Your task to perform on an android device: Empty the shopping cart on target. Image 0: 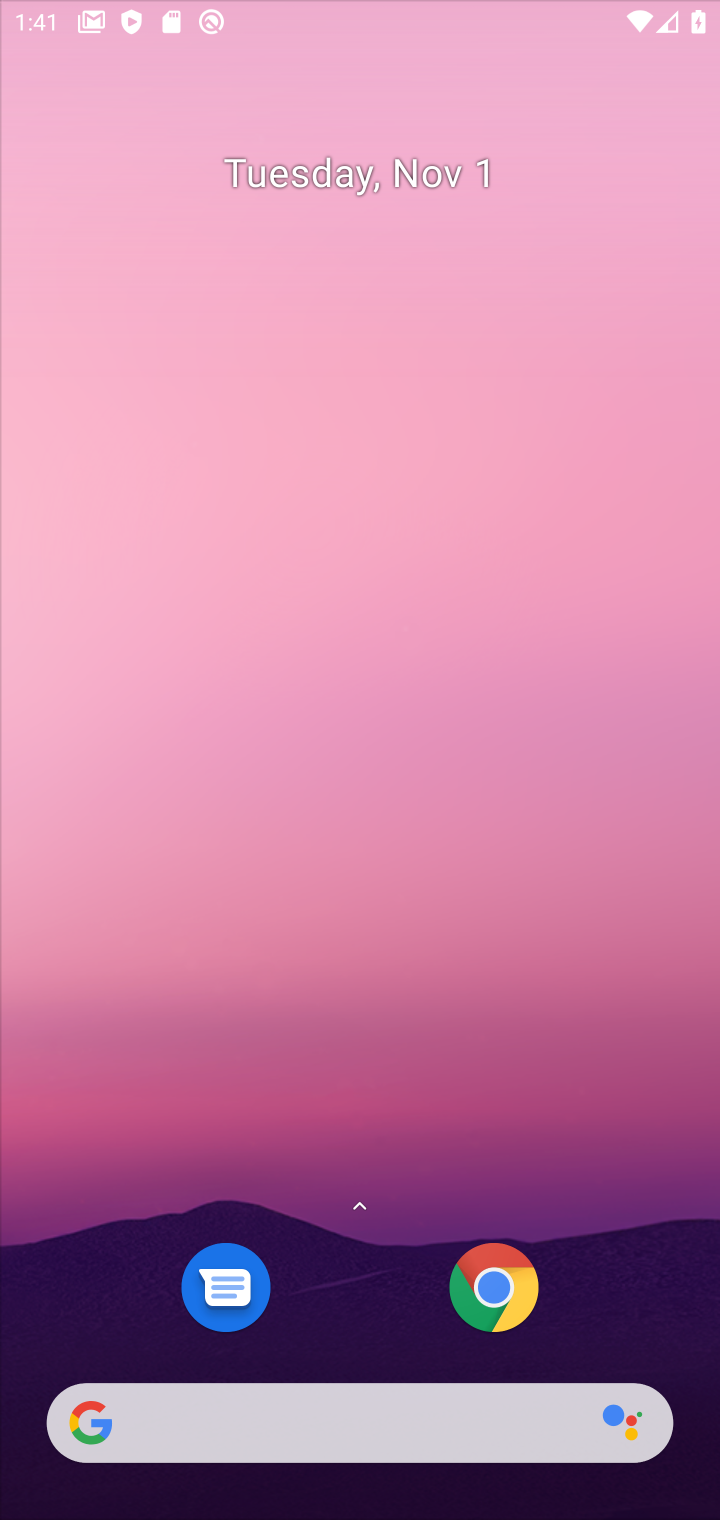
Step 0: press home button
Your task to perform on an android device: Empty the shopping cart on target. Image 1: 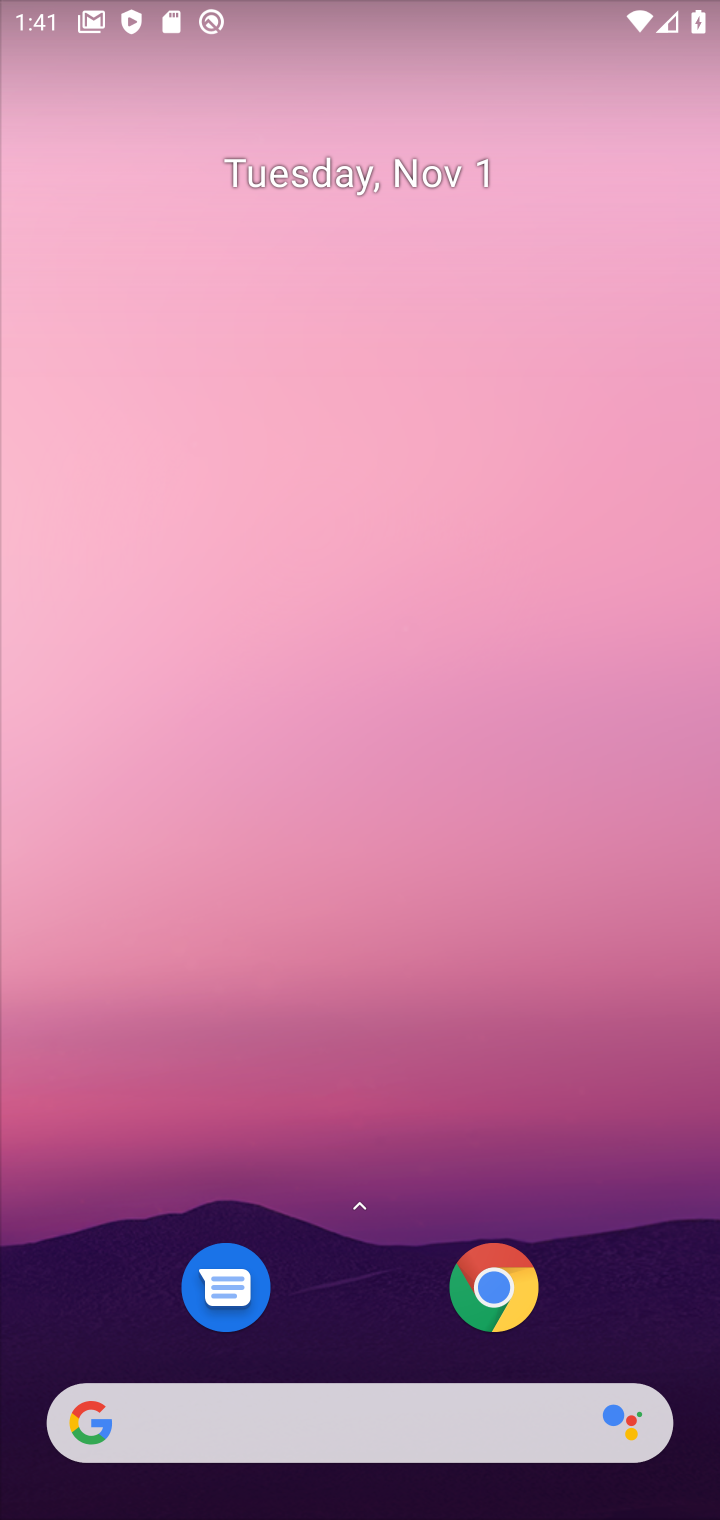
Step 1: drag from (414, 1098) to (528, 129)
Your task to perform on an android device: Empty the shopping cart on target. Image 2: 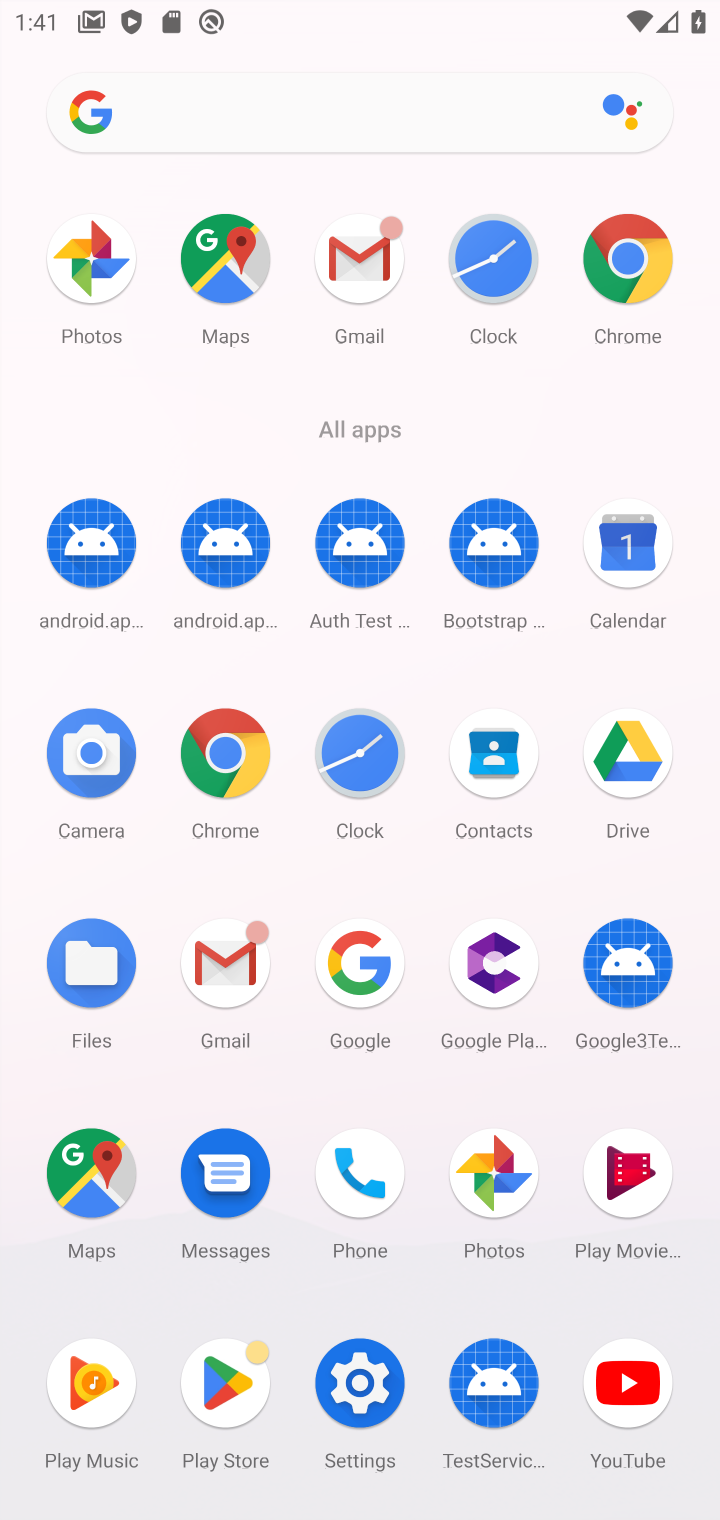
Step 2: click (231, 756)
Your task to perform on an android device: Empty the shopping cart on target. Image 3: 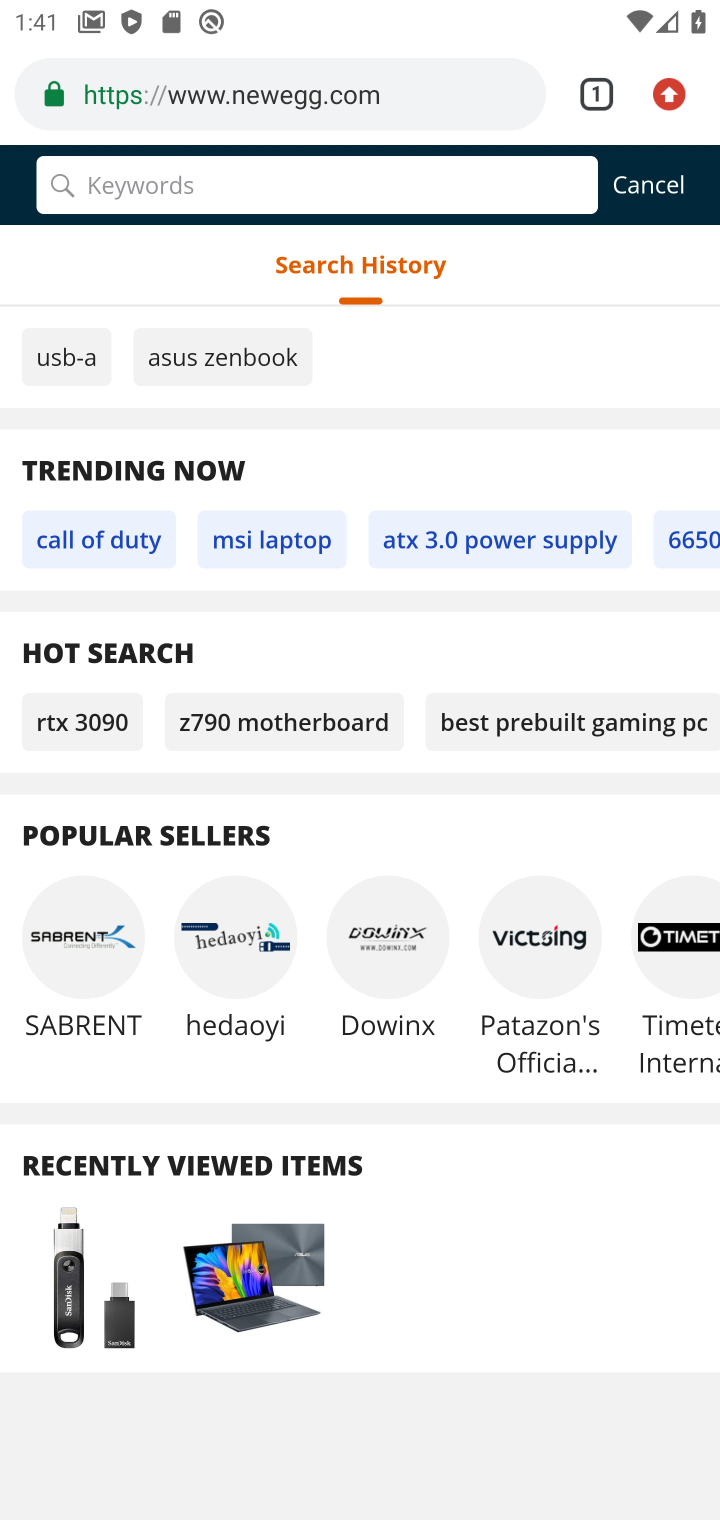
Step 3: click (396, 111)
Your task to perform on an android device: Empty the shopping cart on target. Image 4: 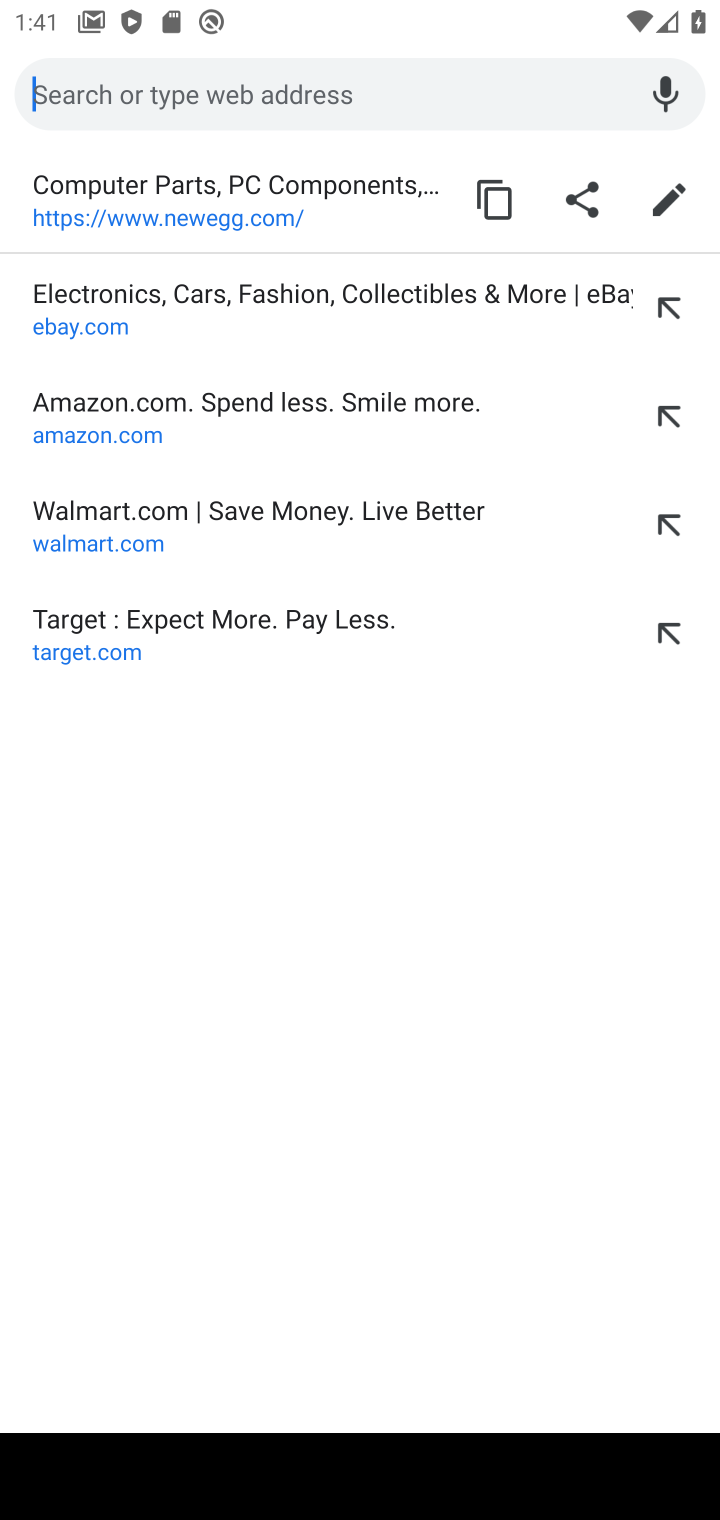
Step 4: type "target.com"
Your task to perform on an android device: Empty the shopping cart on target. Image 5: 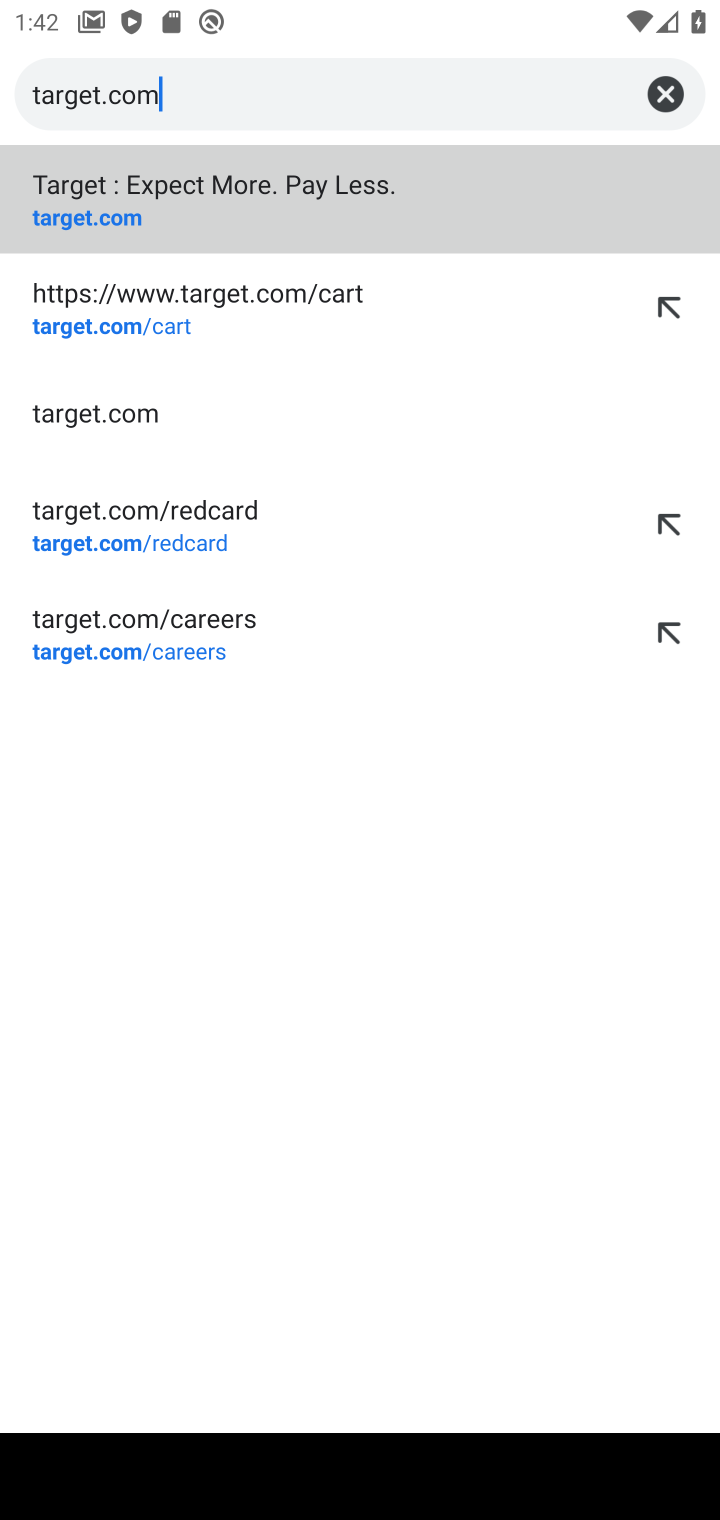
Step 5: press enter
Your task to perform on an android device: Empty the shopping cart on target. Image 6: 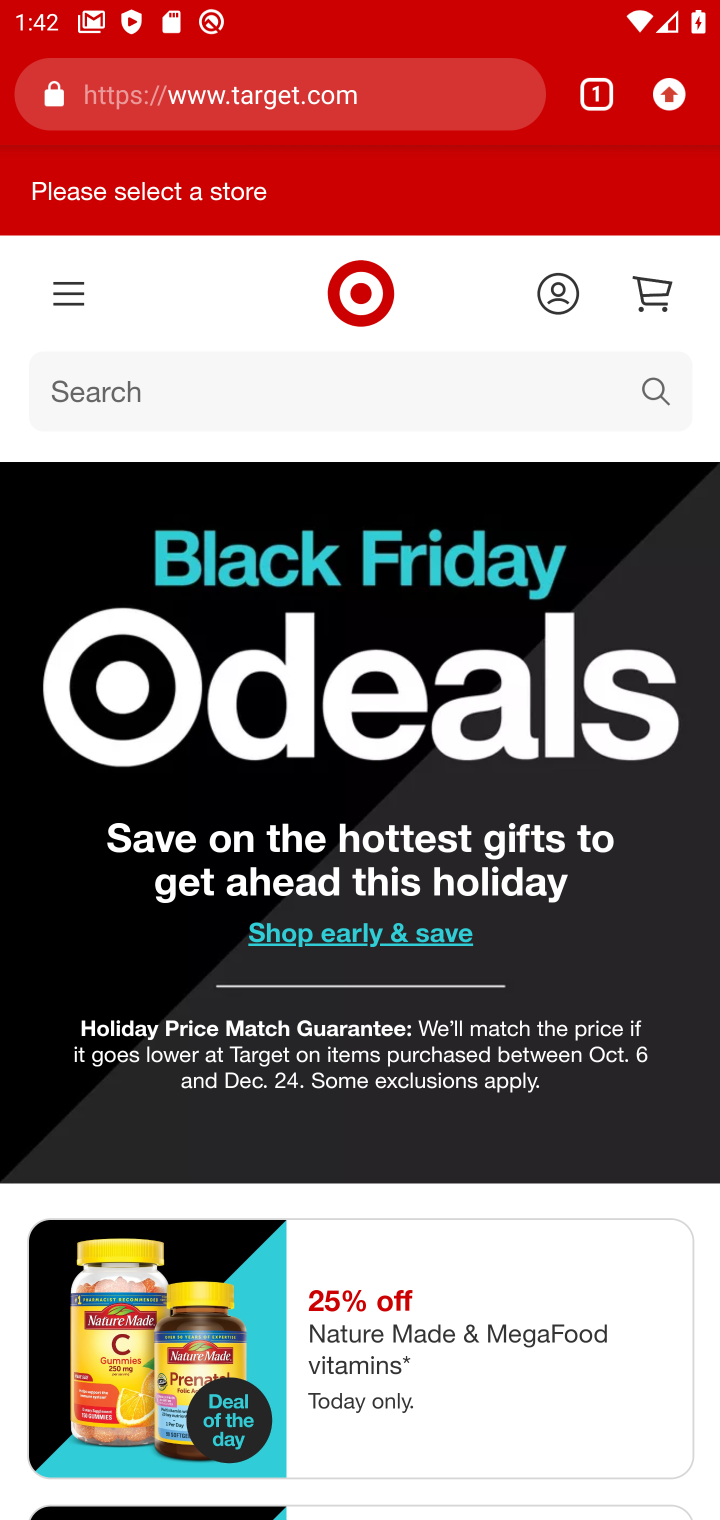
Step 6: click (632, 295)
Your task to perform on an android device: Empty the shopping cart on target. Image 7: 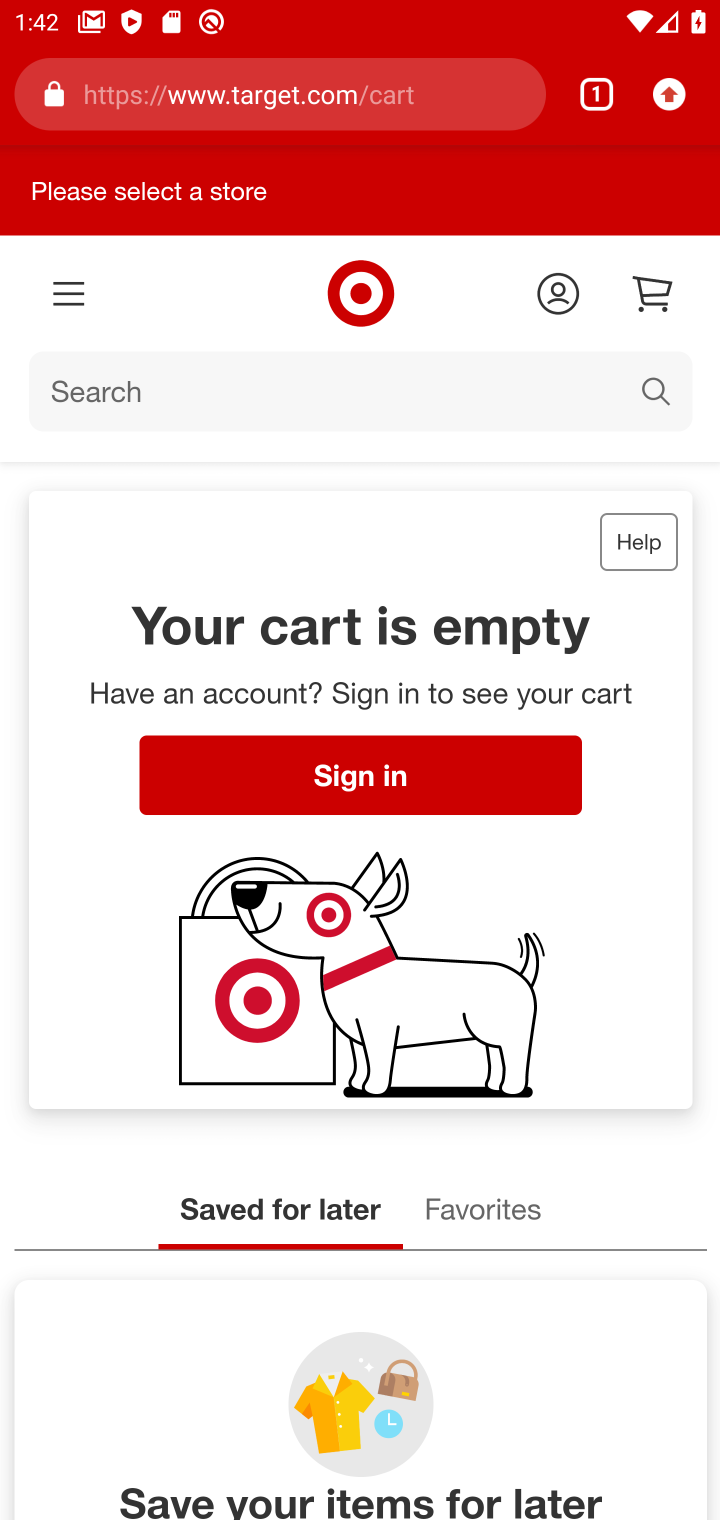
Step 7: task complete